Your task to perform on an android device: open a new tab in the chrome app Image 0: 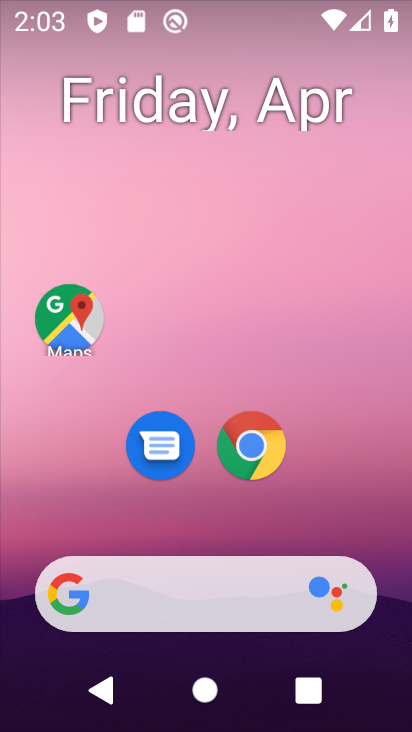
Step 0: click (252, 444)
Your task to perform on an android device: open a new tab in the chrome app Image 1: 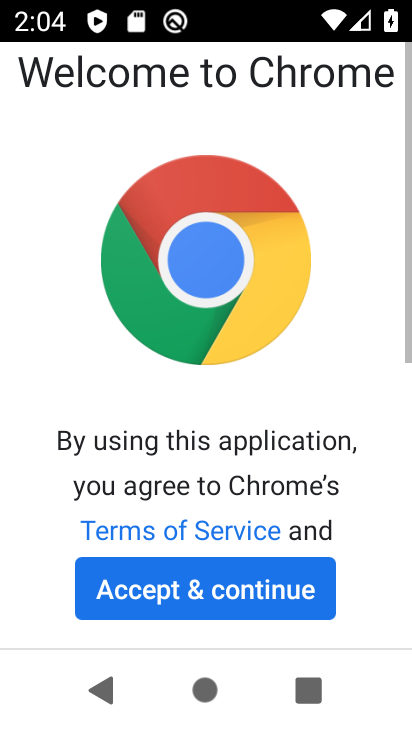
Step 1: click (201, 265)
Your task to perform on an android device: open a new tab in the chrome app Image 2: 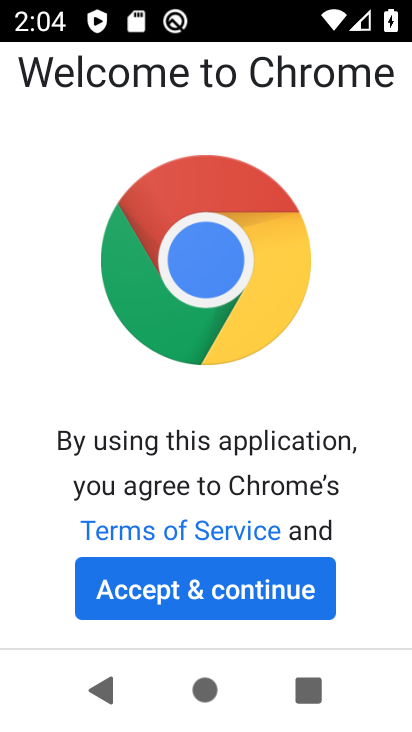
Step 2: click (216, 584)
Your task to perform on an android device: open a new tab in the chrome app Image 3: 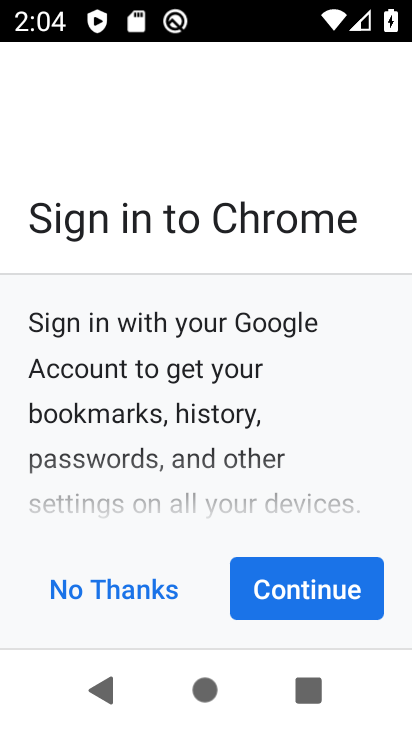
Step 3: click (317, 576)
Your task to perform on an android device: open a new tab in the chrome app Image 4: 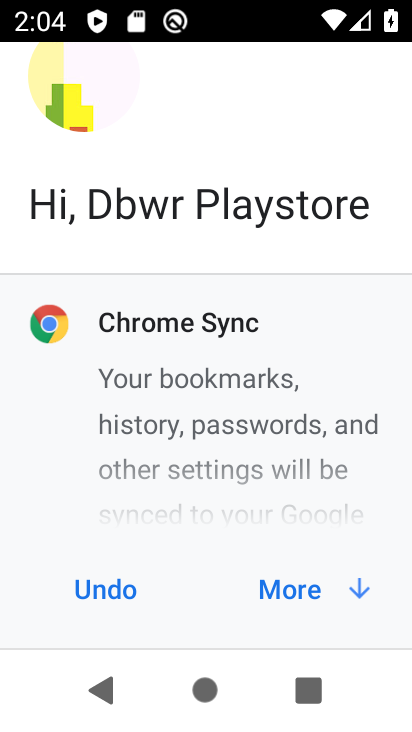
Step 4: click (307, 586)
Your task to perform on an android device: open a new tab in the chrome app Image 5: 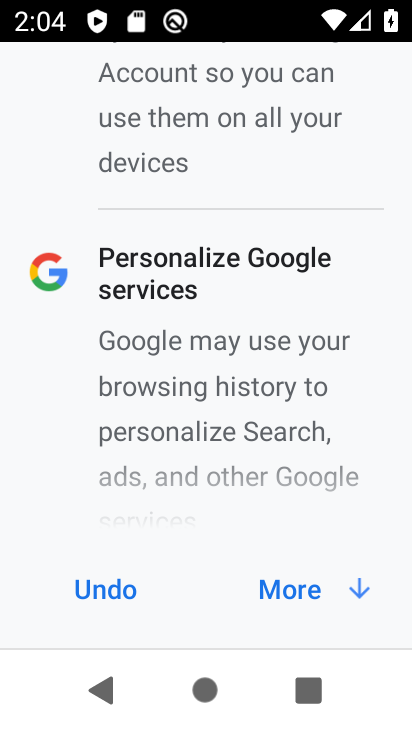
Step 5: click (307, 586)
Your task to perform on an android device: open a new tab in the chrome app Image 6: 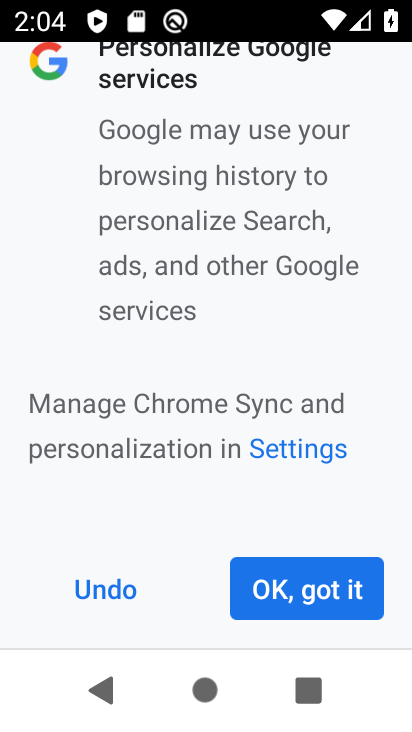
Step 6: click (307, 586)
Your task to perform on an android device: open a new tab in the chrome app Image 7: 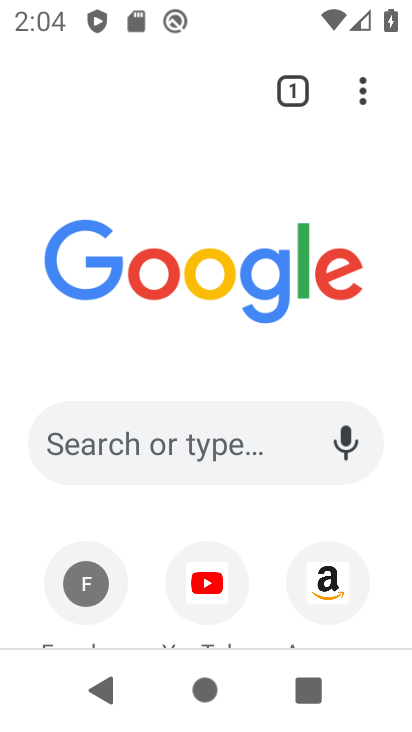
Step 7: click (367, 93)
Your task to perform on an android device: open a new tab in the chrome app Image 8: 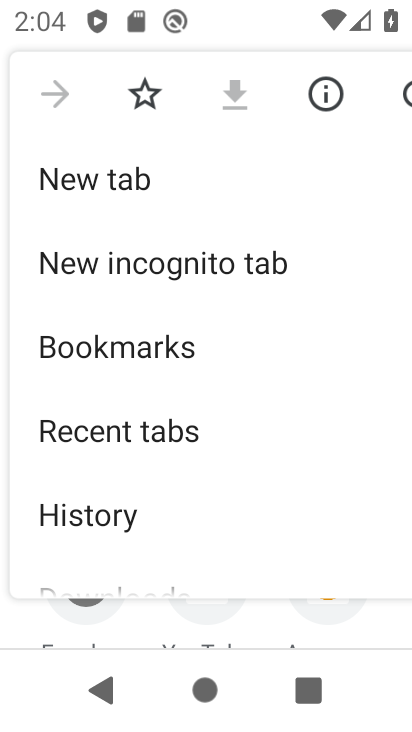
Step 8: click (160, 174)
Your task to perform on an android device: open a new tab in the chrome app Image 9: 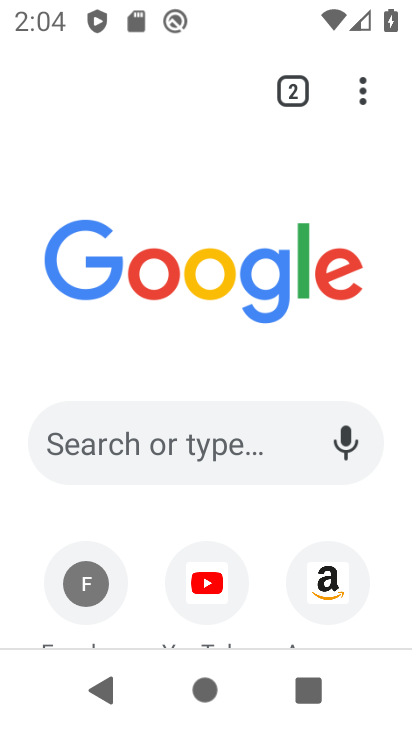
Step 9: task complete